Your task to perform on an android device: change the clock display to show seconds Image 0: 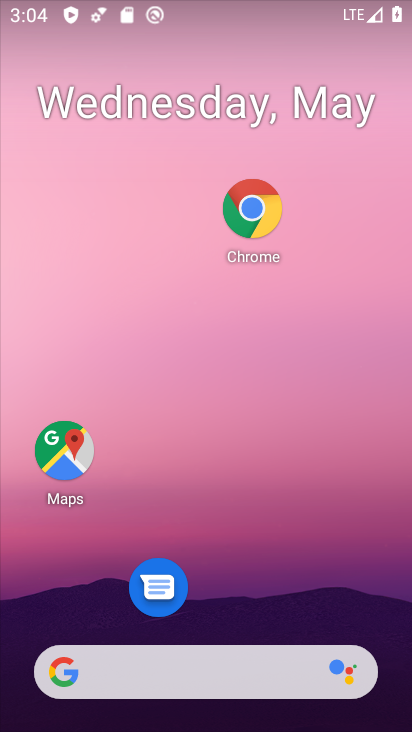
Step 0: drag from (281, 603) to (277, 145)
Your task to perform on an android device: change the clock display to show seconds Image 1: 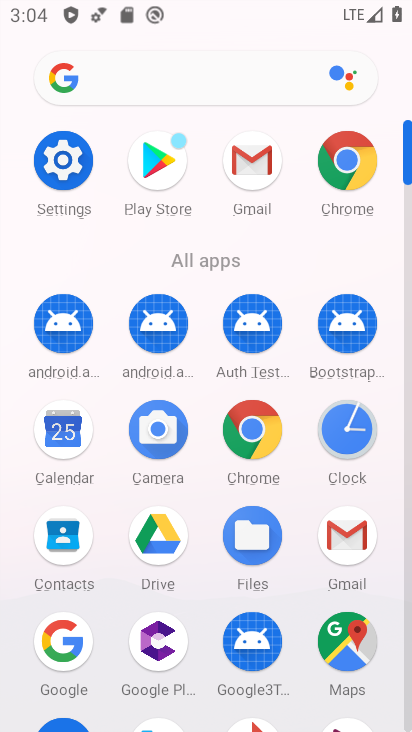
Step 1: click (338, 451)
Your task to perform on an android device: change the clock display to show seconds Image 2: 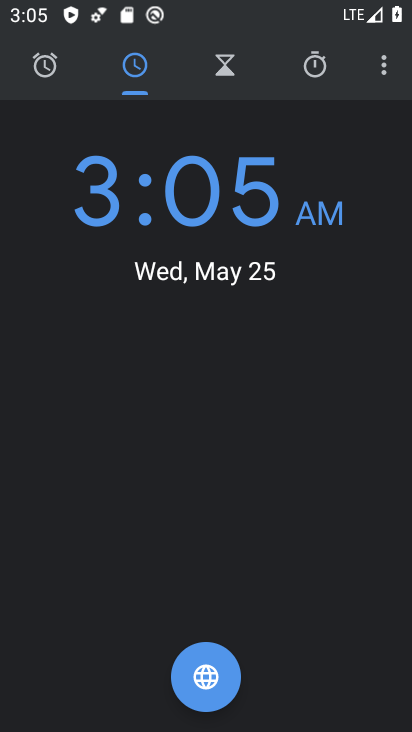
Step 2: click (391, 70)
Your task to perform on an android device: change the clock display to show seconds Image 3: 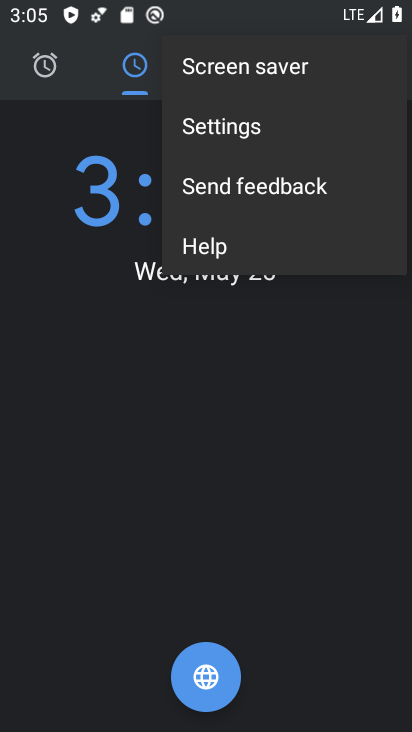
Step 3: click (207, 115)
Your task to perform on an android device: change the clock display to show seconds Image 4: 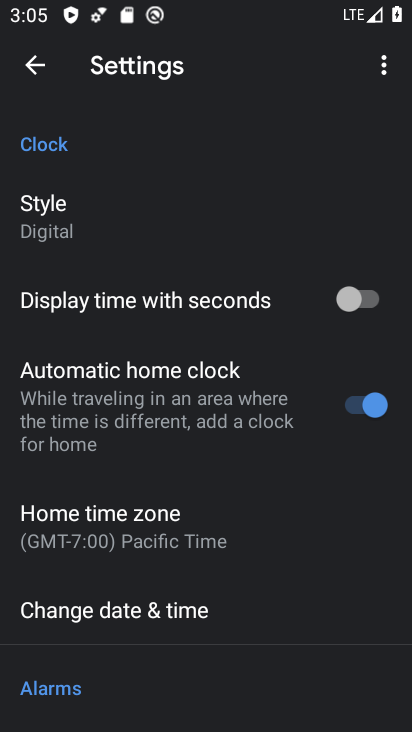
Step 4: click (379, 293)
Your task to perform on an android device: change the clock display to show seconds Image 5: 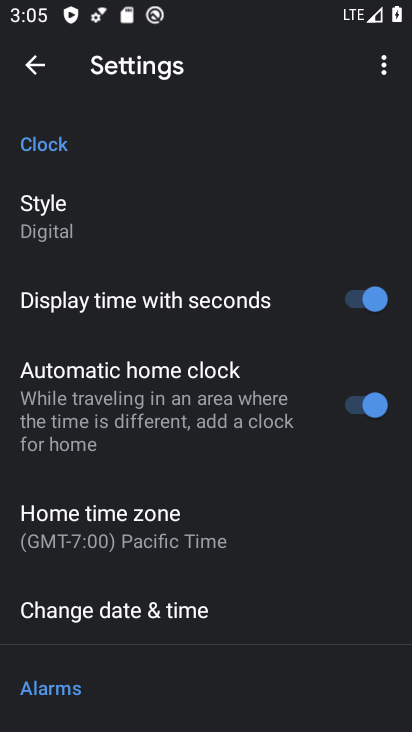
Step 5: task complete